Your task to perform on an android device: View the shopping cart on amazon. Search for rayovac triple a on amazon, select the first entry, and add it to the cart. Image 0: 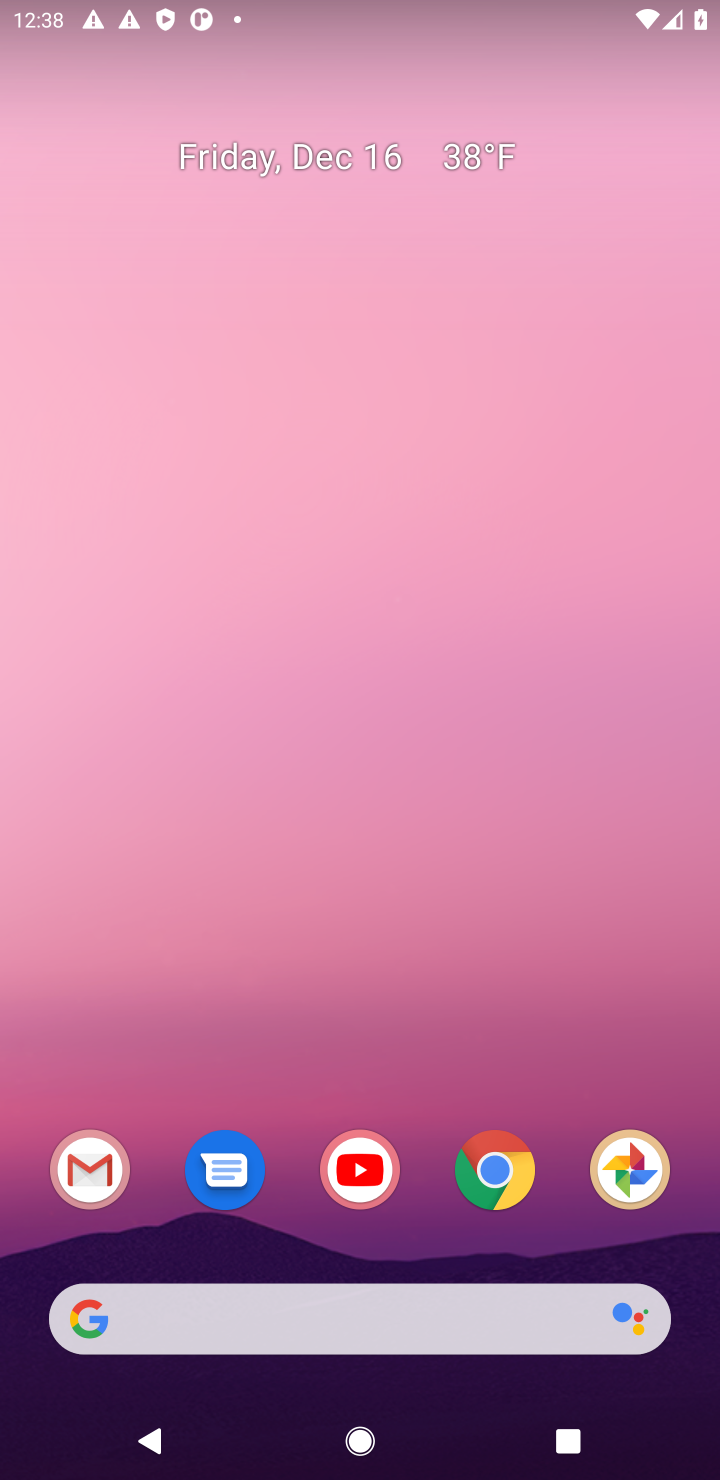
Step 0: click (493, 1183)
Your task to perform on an android device: View the shopping cart on amazon. Search for rayovac triple a on amazon, select the first entry, and add it to the cart. Image 1: 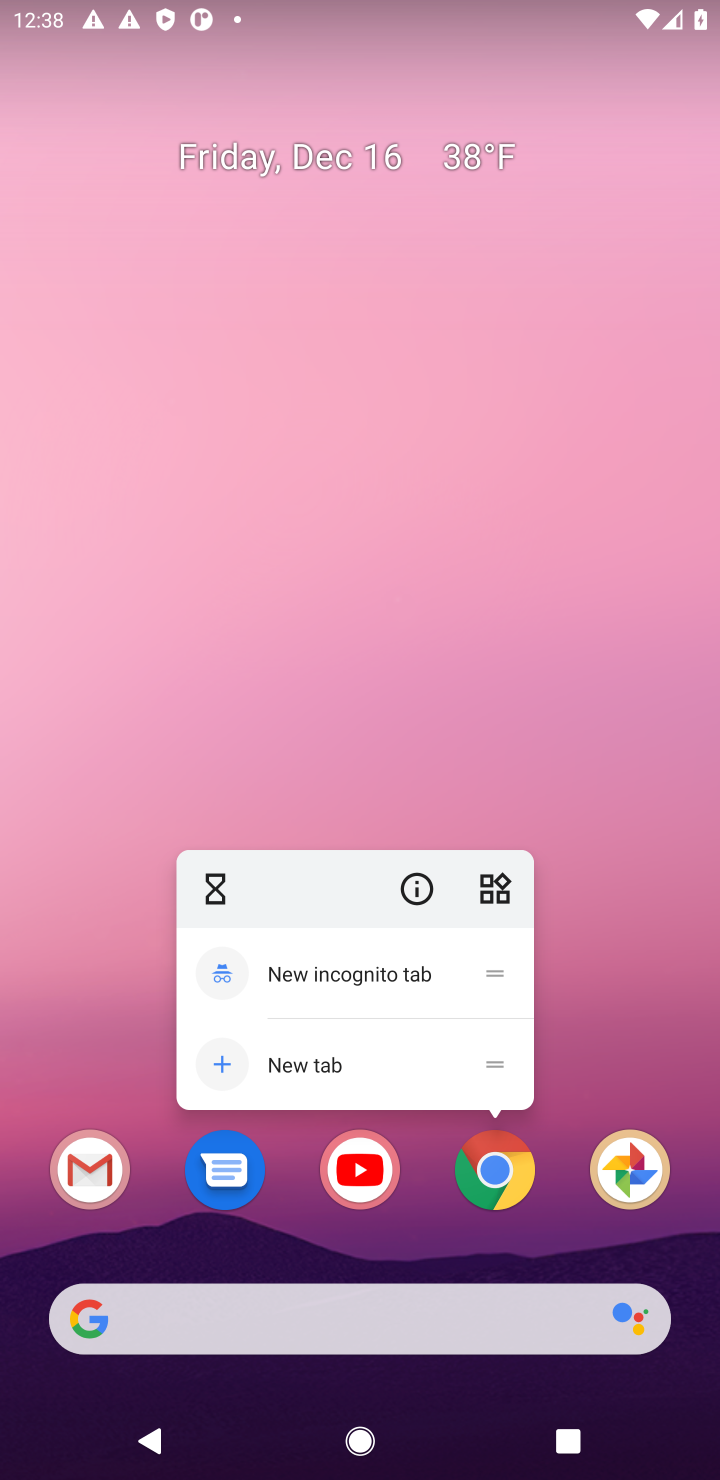
Step 1: click (491, 1159)
Your task to perform on an android device: View the shopping cart on amazon. Search for rayovac triple a on amazon, select the first entry, and add it to the cart. Image 2: 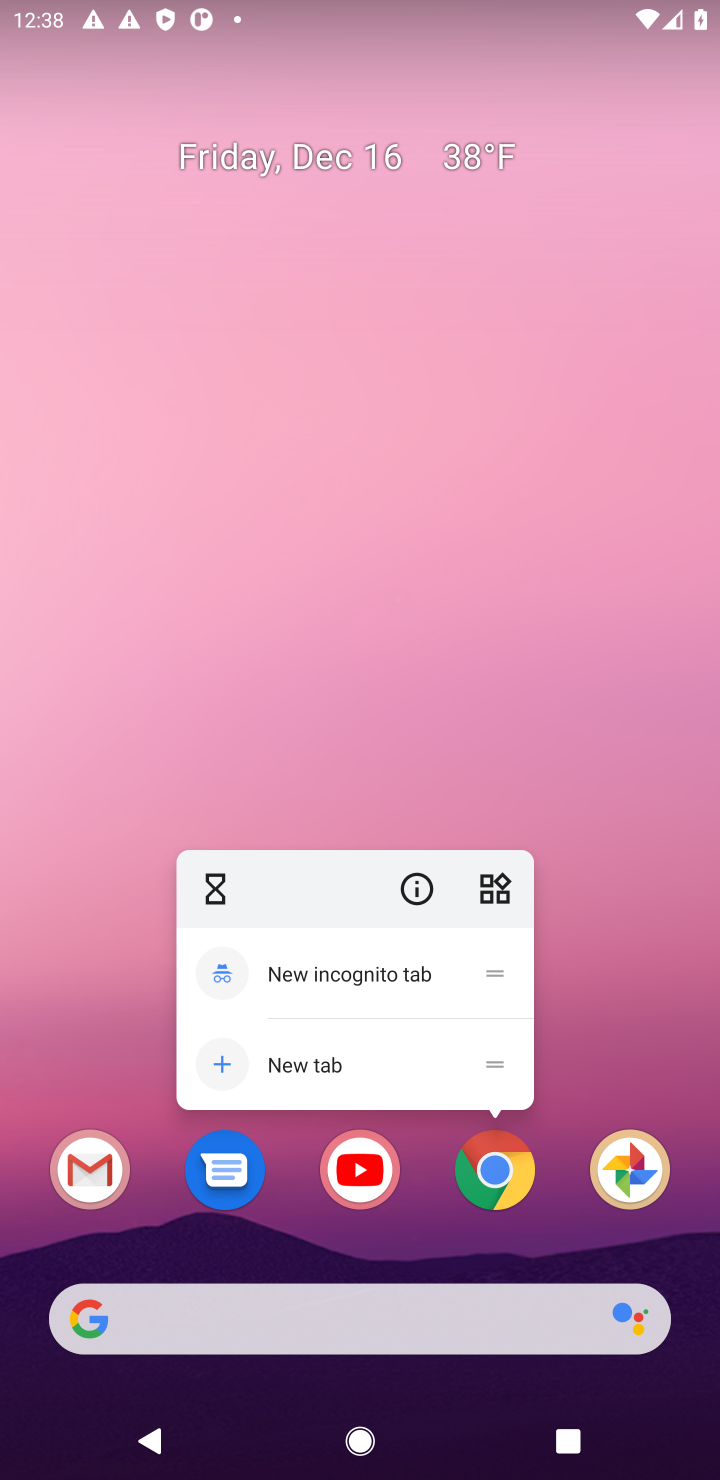
Step 2: click (491, 1184)
Your task to perform on an android device: View the shopping cart on amazon. Search for rayovac triple a on amazon, select the first entry, and add it to the cart. Image 3: 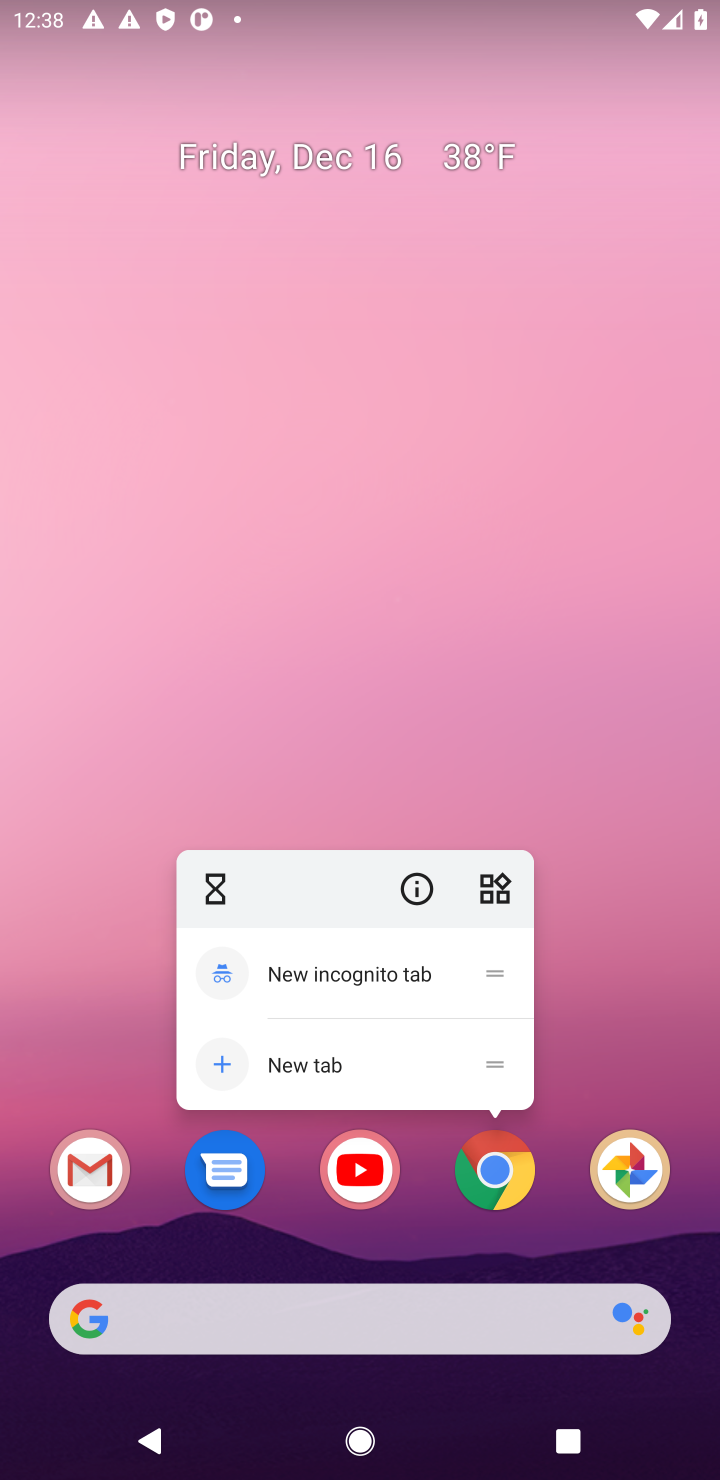
Step 3: click (491, 1184)
Your task to perform on an android device: View the shopping cart on amazon. Search for rayovac triple a on amazon, select the first entry, and add it to the cart. Image 4: 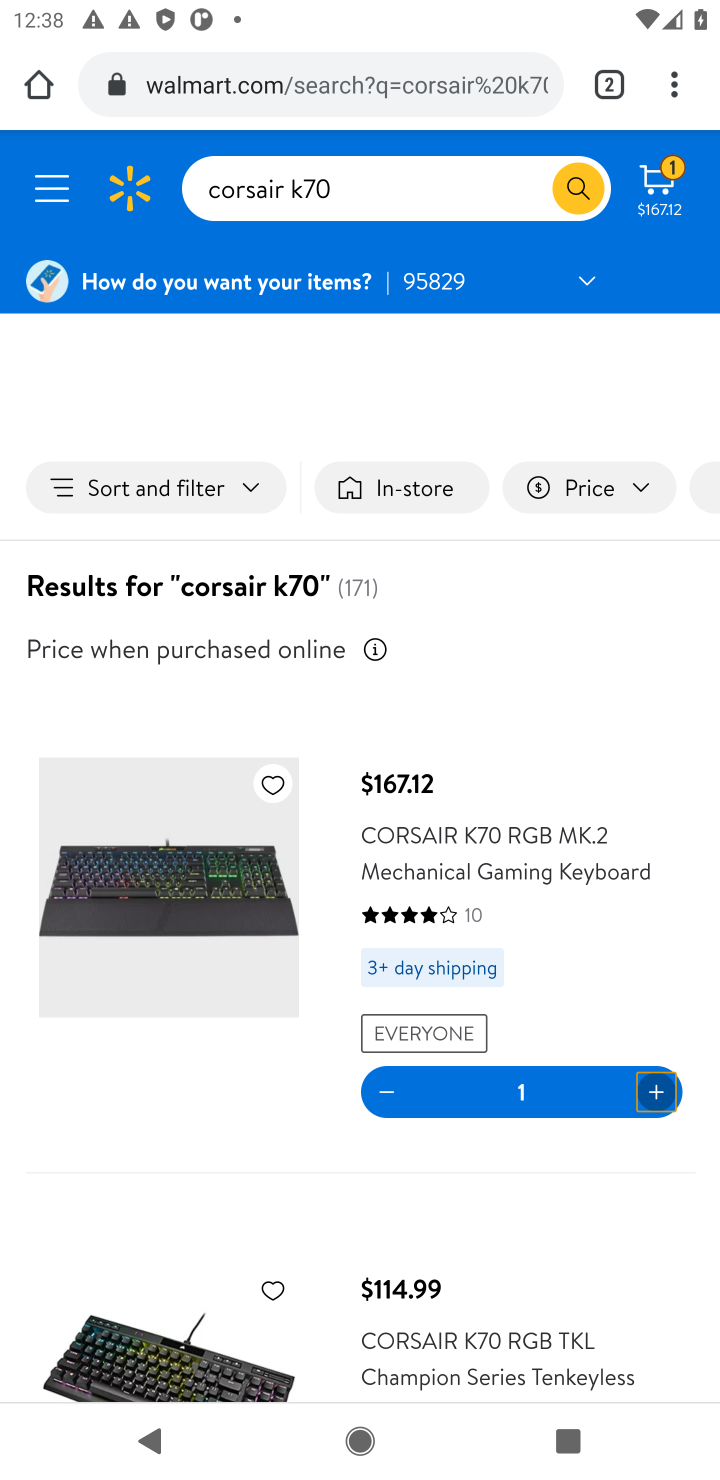
Step 4: click (245, 94)
Your task to perform on an android device: View the shopping cart on amazon. Search for rayovac triple a on amazon, select the first entry, and add it to the cart. Image 5: 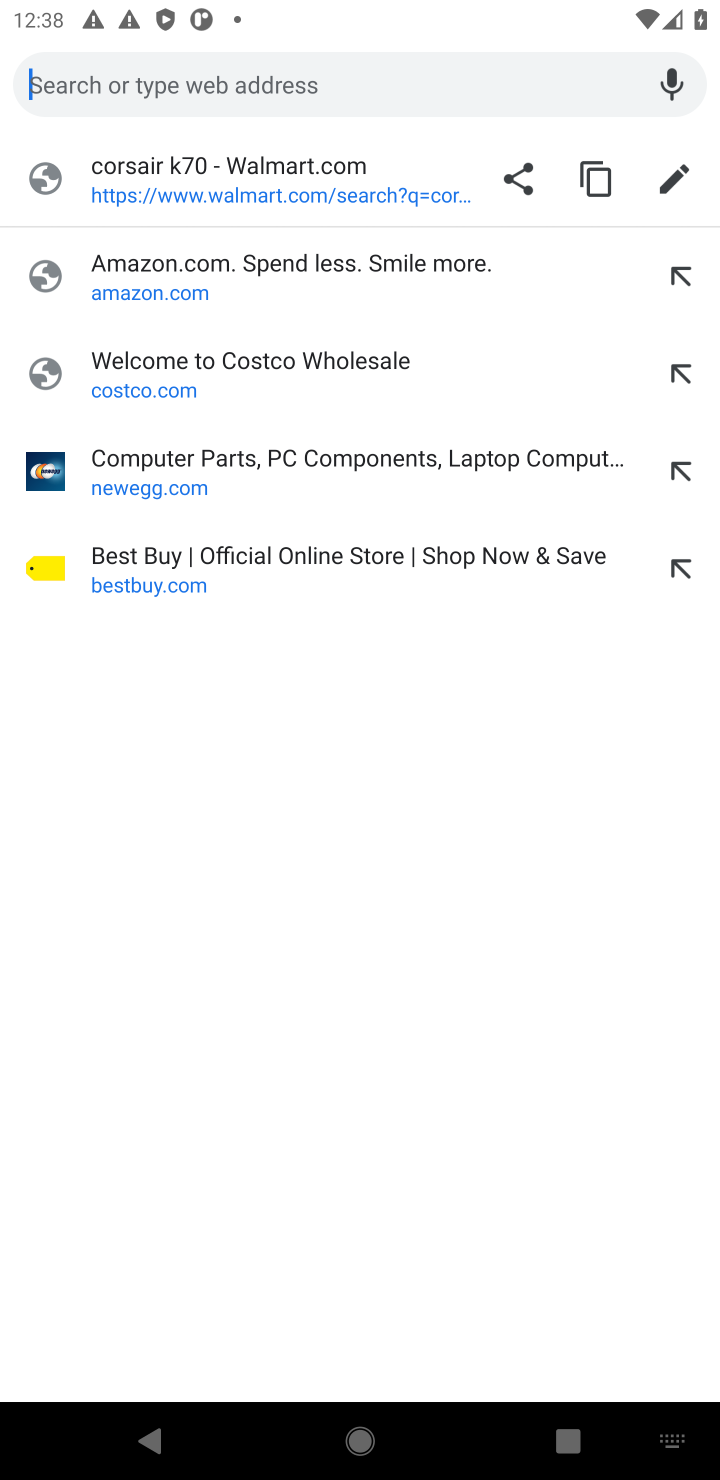
Step 5: click (145, 309)
Your task to perform on an android device: View the shopping cart on amazon. Search for rayovac triple a on amazon, select the first entry, and add it to the cart. Image 6: 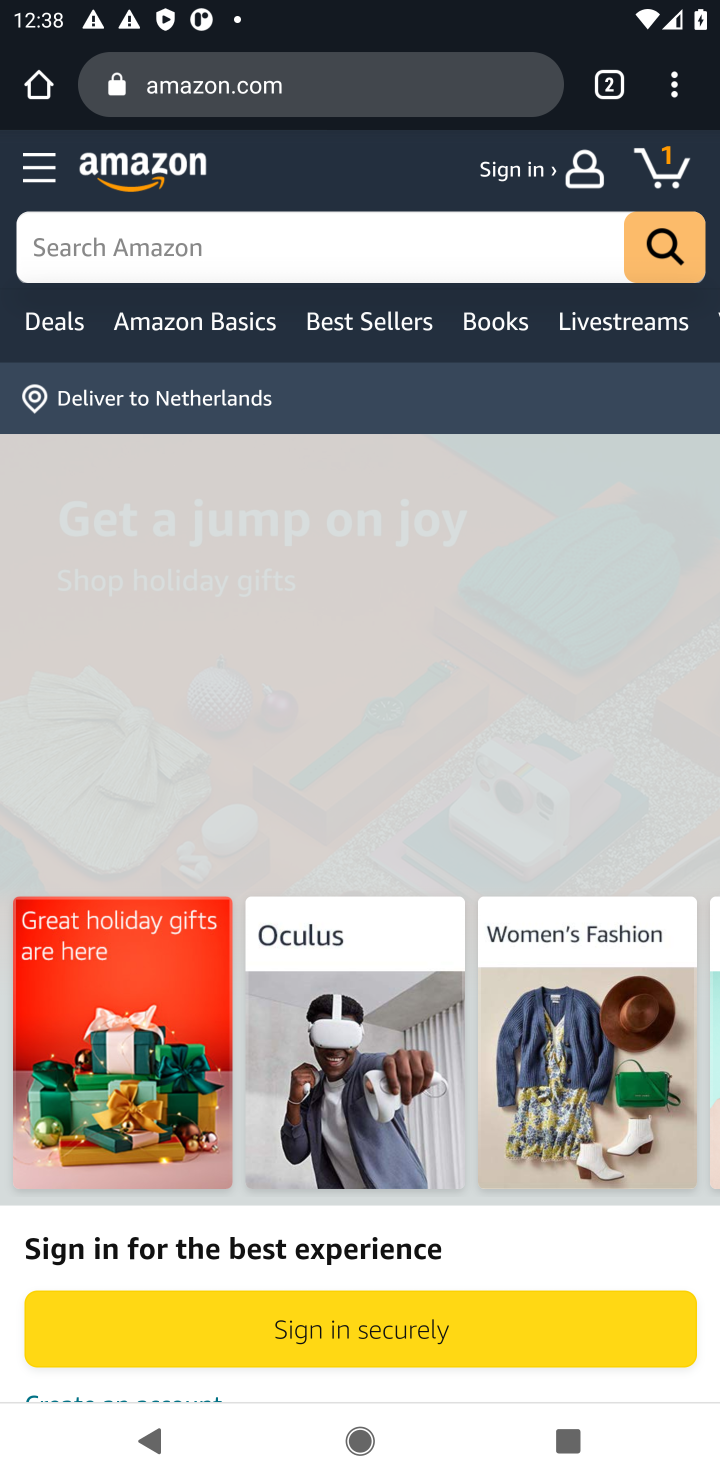
Step 6: click (662, 174)
Your task to perform on an android device: View the shopping cart on amazon. Search for rayovac triple a on amazon, select the first entry, and add it to the cart. Image 7: 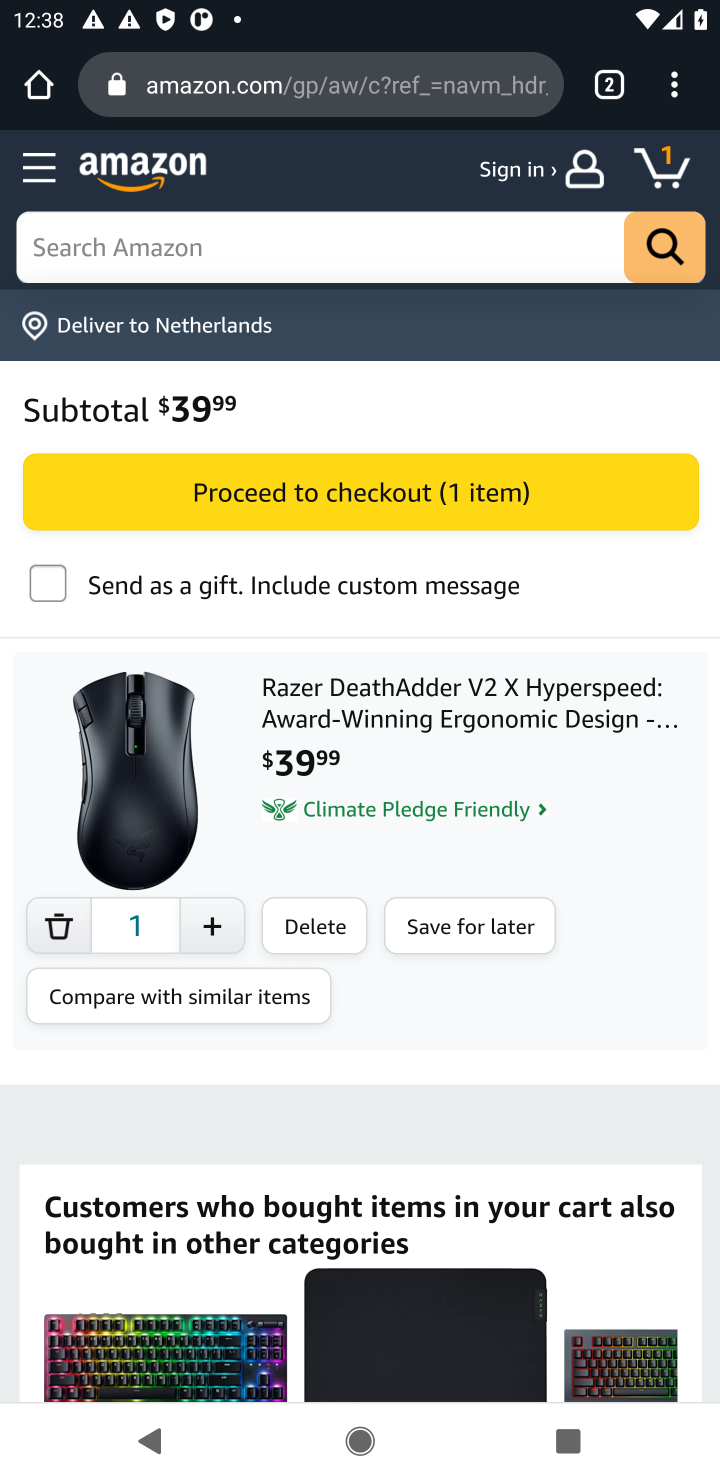
Step 7: click (186, 244)
Your task to perform on an android device: View the shopping cart on amazon. Search for rayovac triple a on amazon, select the first entry, and add it to the cart. Image 8: 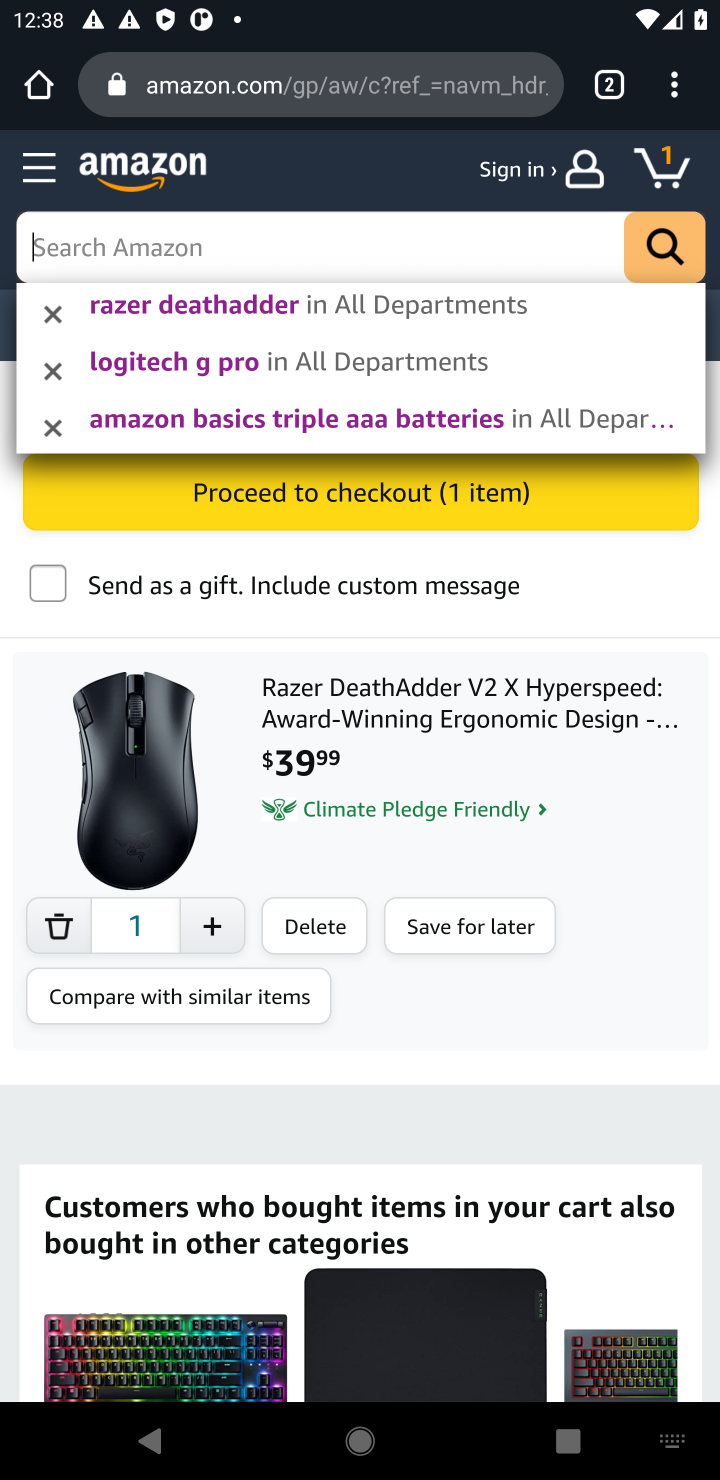
Step 8: type "rayovac triple a "
Your task to perform on an android device: View the shopping cart on amazon. Search for rayovac triple a on amazon, select the first entry, and add it to the cart. Image 9: 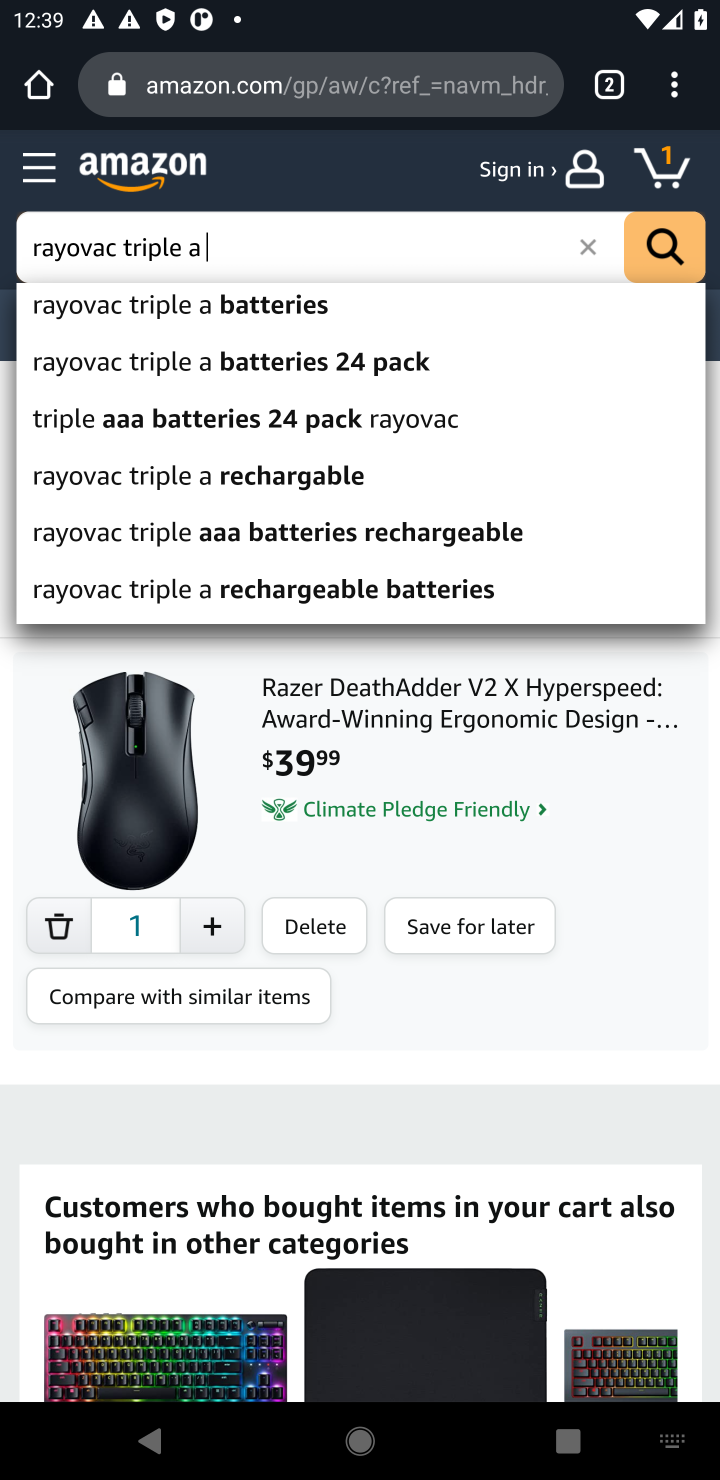
Step 9: click (220, 315)
Your task to perform on an android device: View the shopping cart on amazon. Search for rayovac triple a on amazon, select the first entry, and add it to the cart. Image 10: 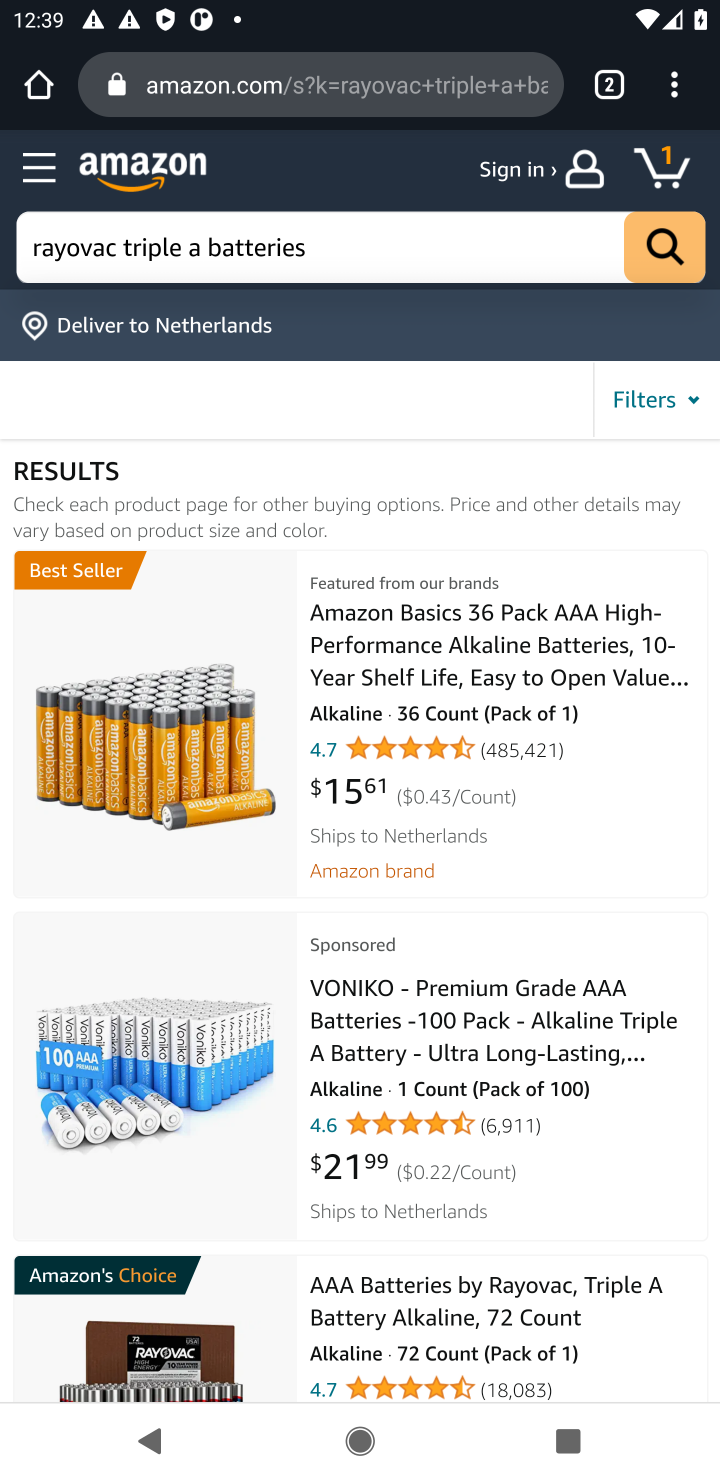
Step 10: task complete